Your task to perform on an android device: clear history in the chrome app Image 0: 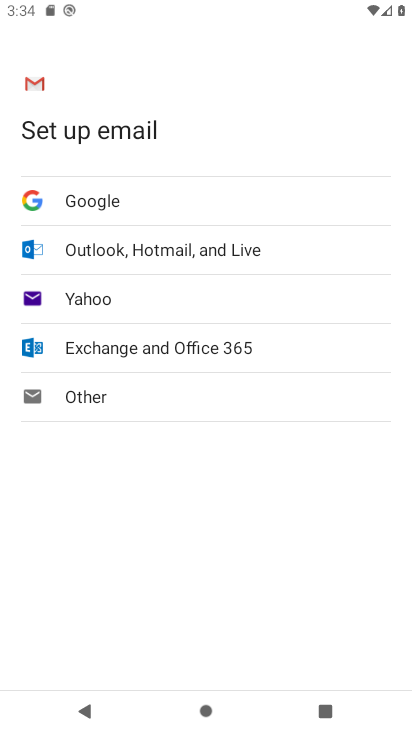
Step 0: press home button
Your task to perform on an android device: clear history in the chrome app Image 1: 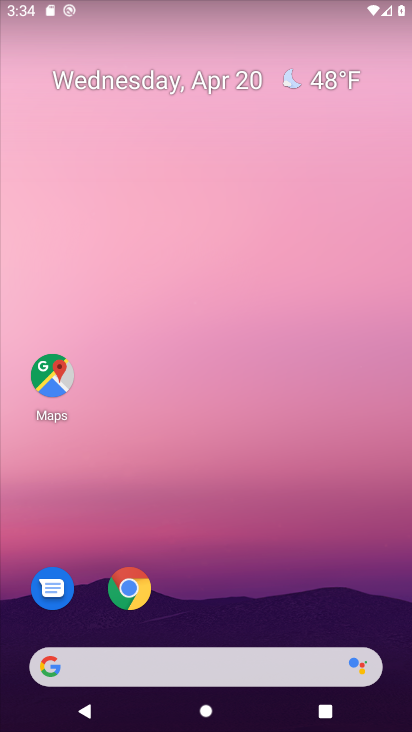
Step 1: drag from (295, 606) to (306, 148)
Your task to perform on an android device: clear history in the chrome app Image 2: 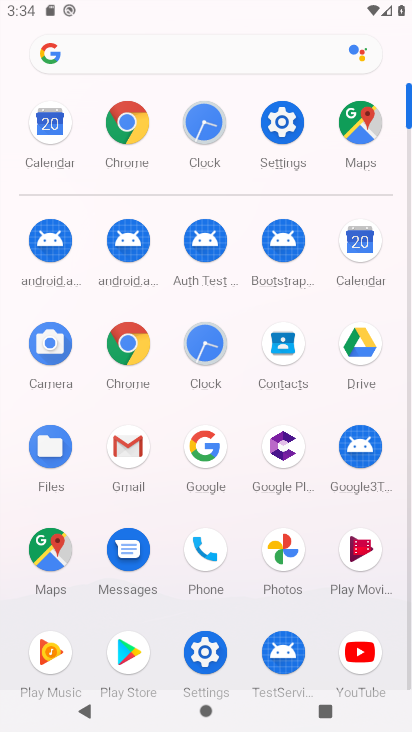
Step 2: click (128, 347)
Your task to perform on an android device: clear history in the chrome app Image 3: 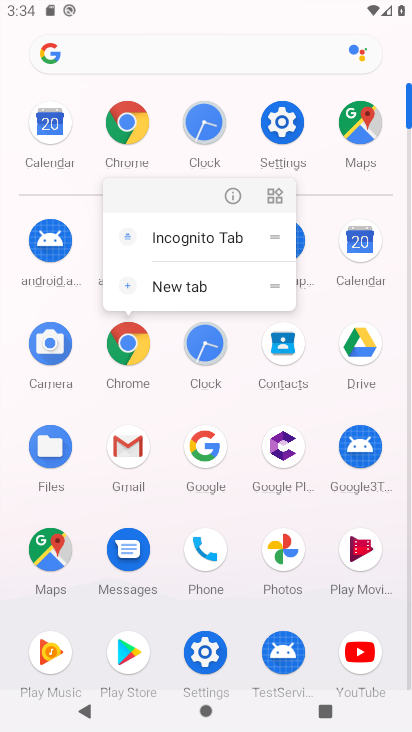
Step 3: click (145, 346)
Your task to perform on an android device: clear history in the chrome app Image 4: 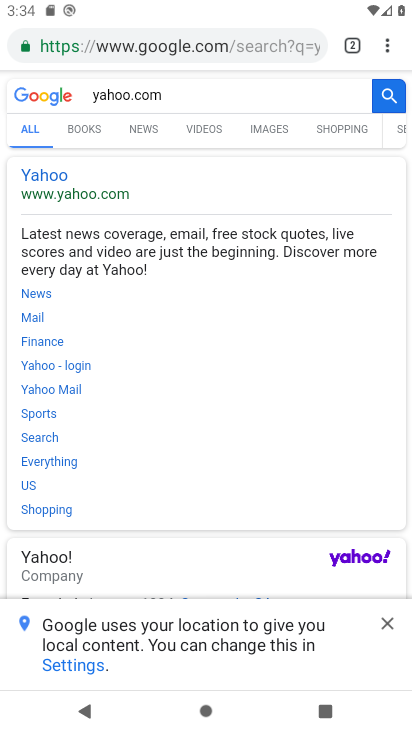
Step 4: click (388, 44)
Your task to perform on an android device: clear history in the chrome app Image 5: 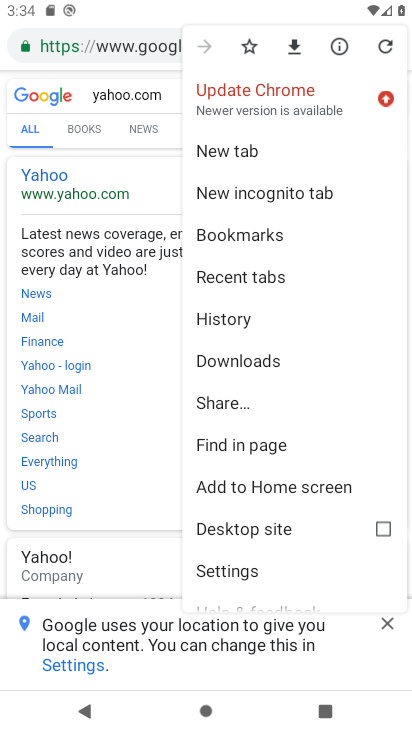
Step 5: click (258, 326)
Your task to perform on an android device: clear history in the chrome app Image 6: 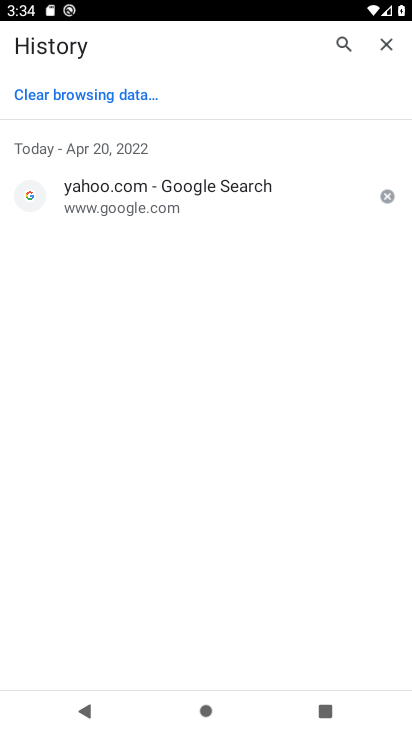
Step 6: click (125, 97)
Your task to perform on an android device: clear history in the chrome app Image 7: 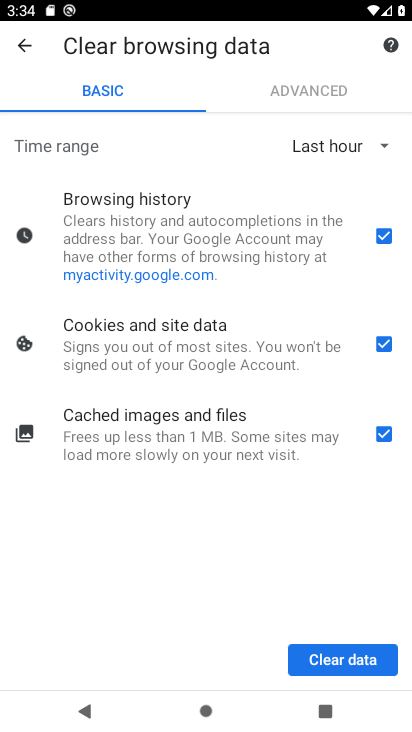
Step 7: click (334, 652)
Your task to perform on an android device: clear history in the chrome app Image 8: 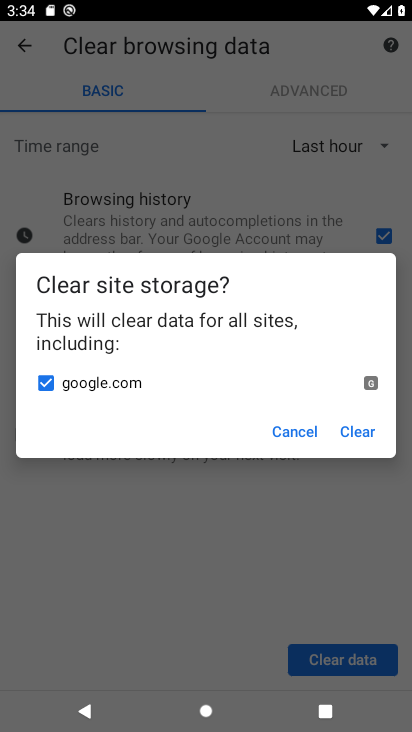
Step 8: click (352, 427)
Your task to perform on an android device: clear history in the chrome app Image 9: 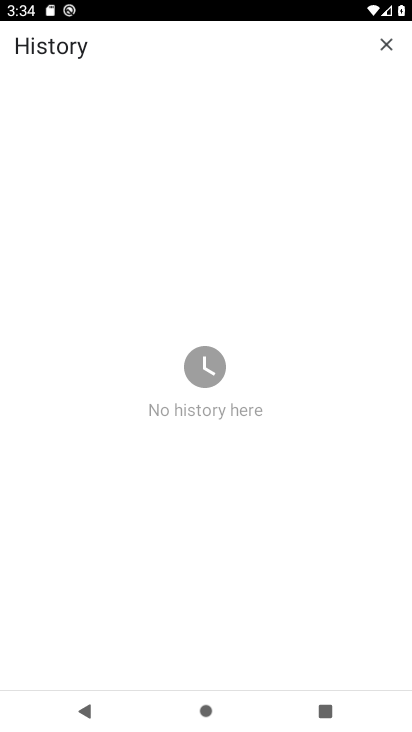
Step 9: task complete